Your task to perform on an android device: turn off translation in the chrome app Image 0: 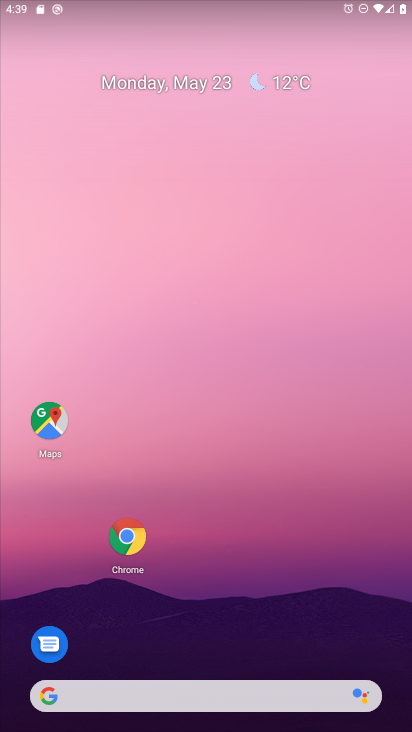
Step 0: click (126, 530)
Your task to perform on an android device: turn off translation in the chrome app Image 1: 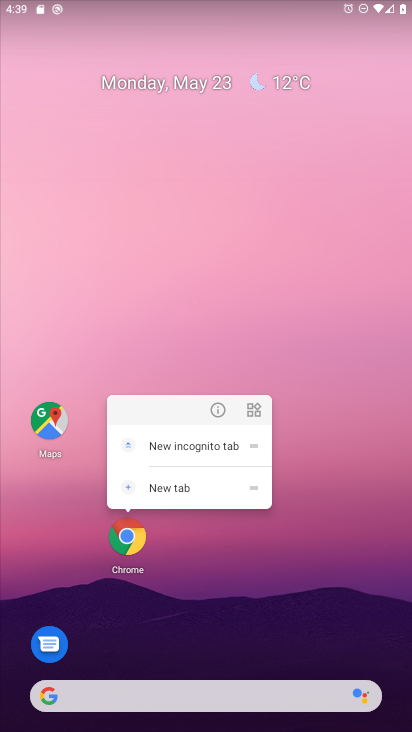
Step 1: click (134, 536)
Your task to perform on an android device: turn off translation in the chrome app Image 2: 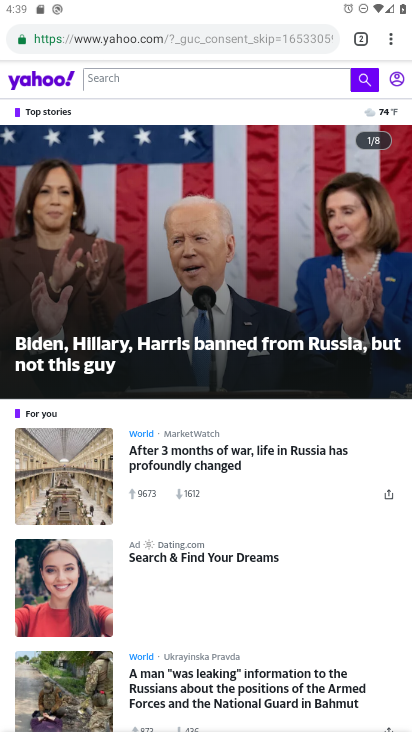
Step 2: click (390, 41)
Your task to perform on an android device: turn off translation in the chrome app Image 3: 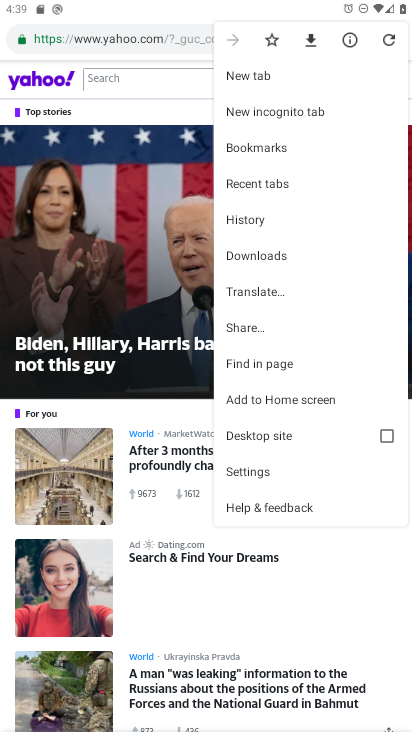
Step 3: click (281, 472)
Your task to perform on an android device: turn off translation in the chrome app Image 4: 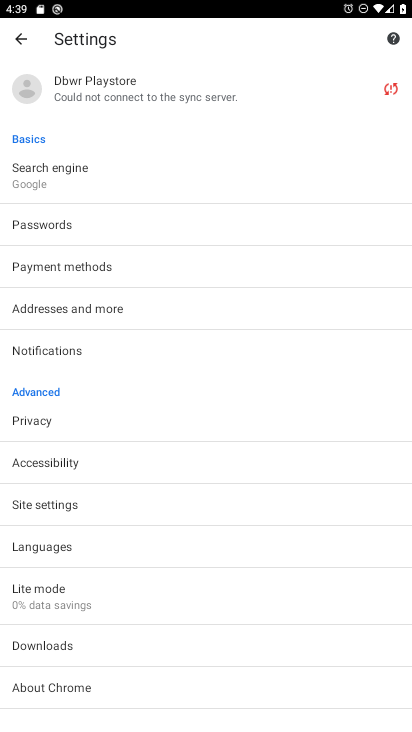
Step 4: click (71, 553)
Your task to perform on an android device: turn off translation in the chrome app Image 5: 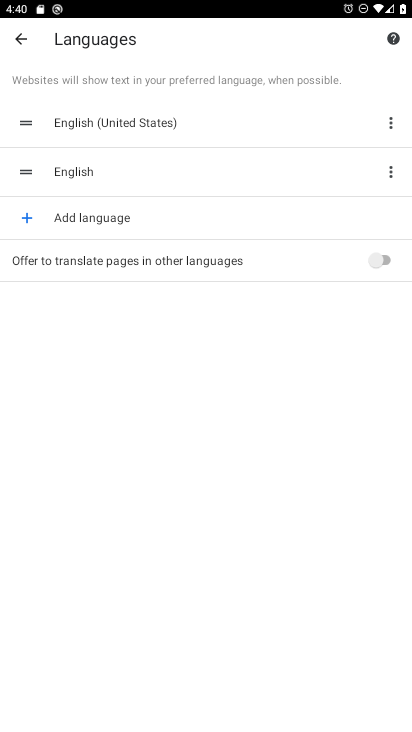
Step 5: task complete